Your task to perform on an android device: show emergency info Image 0: 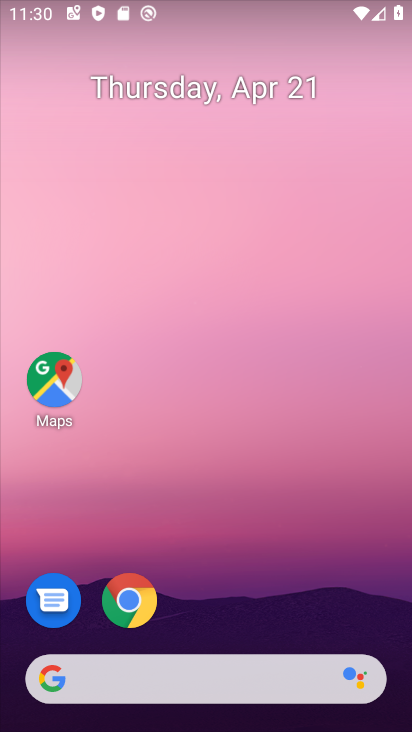
Step 0: drag from (207, 612) to (318, 8)
Your task to perform on an android device: show emergency info Image 1: 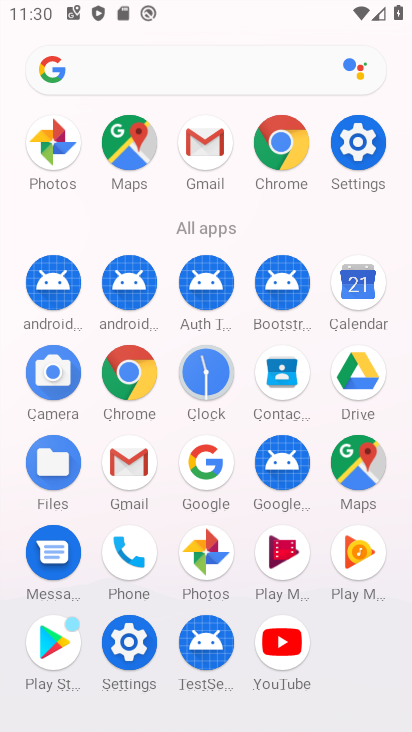
Step 1: click (370, 199)
Your task to perform on an android device: show emergency info Image 2: 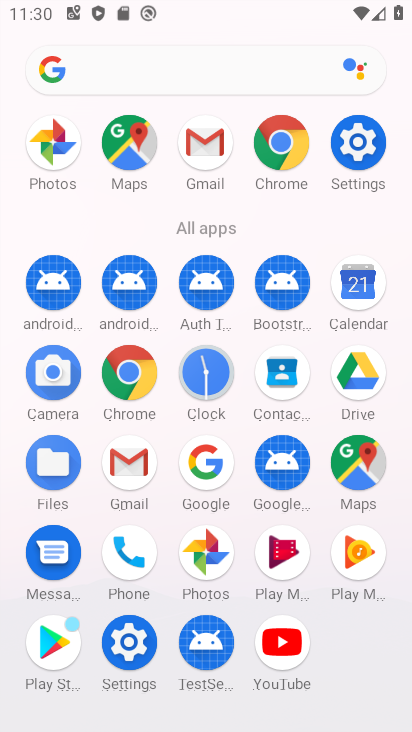
Step 2: click (373, 168)
Your task to perform on an android device: show emergency info Image 3: 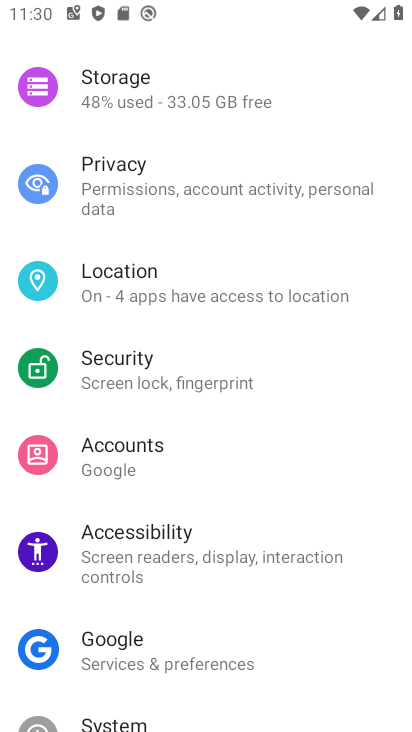
Step 3: drag from (177, 648) to (319, 21)
Your task to perform on an android device: show emergency info Image 4: 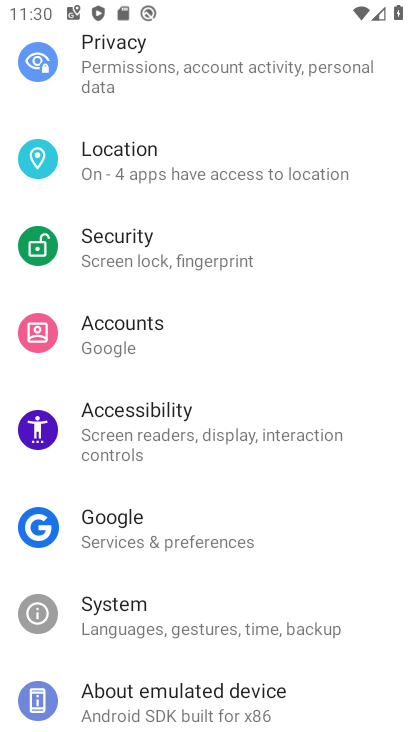
Step 4: drag from (194, 634) to (275, 212)
Your task to perform on an android device: show emergency info Image 5: 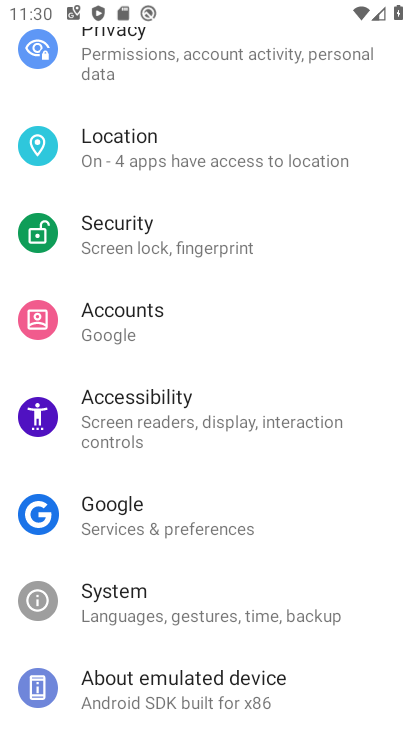
Step 5: click (158, 700)
Your task to perform on an android device: show emergency info Image 6: 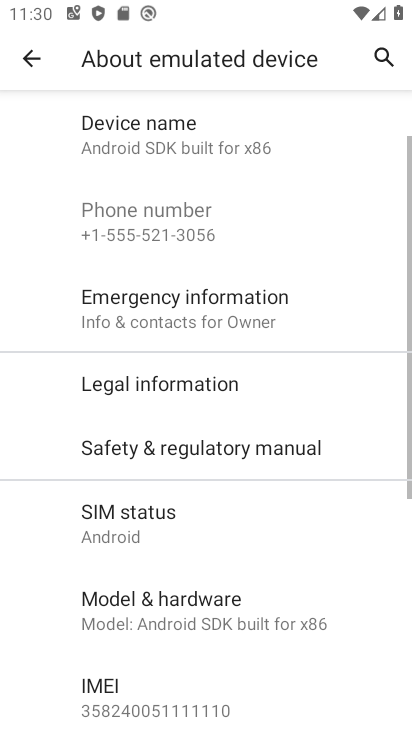
Step 6: click (193, 308)
Your task to perform on an android device: show emergency info Image 7: 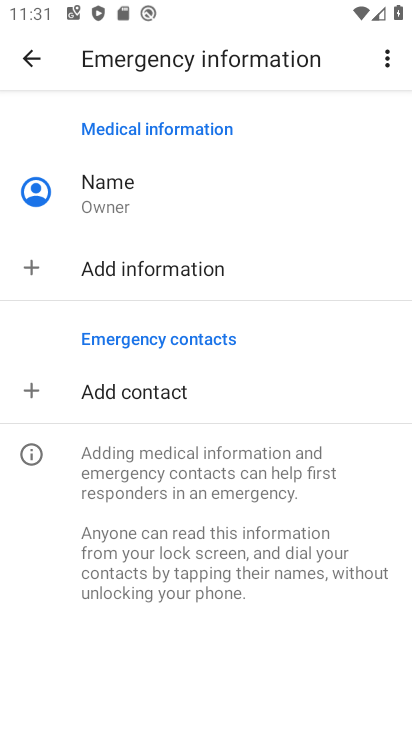
Step 7: task complete